Your task to perform on an android device: Open privacy settings Image 0: 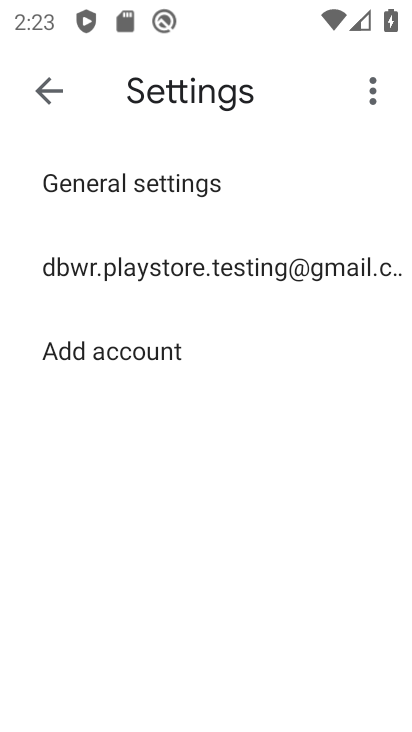
Step 0: press home button
Your task to perform on an android device: Open privacy settings Image 1: 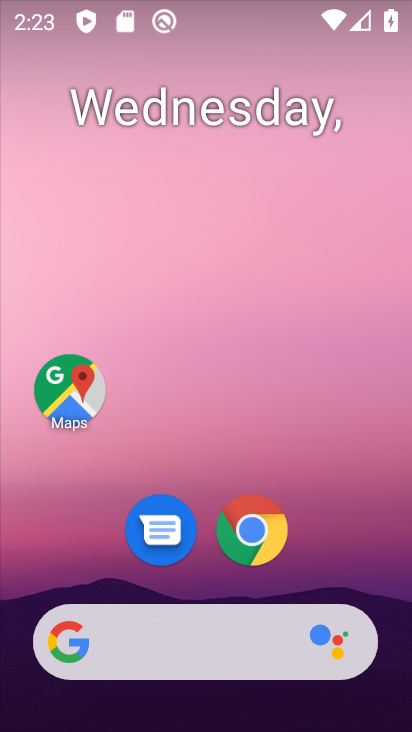
Step 1: drag from (251, 615) to (226, 14)
Your task to perform on an android device: Open privacy settings Image 2: 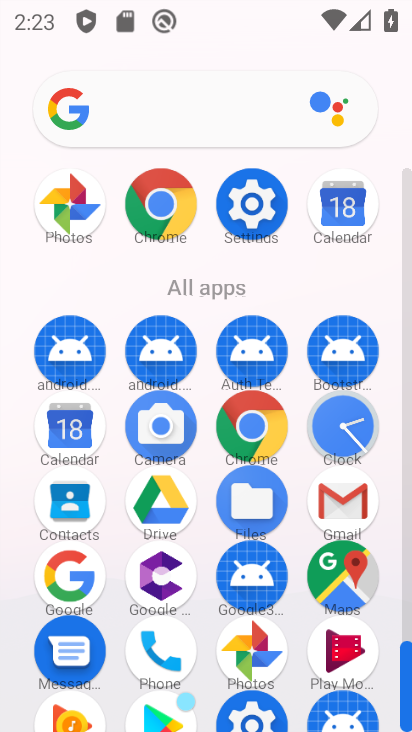
Step 2: click (247, 190)
Your task to perform on an android device: Open privacy settings Image 3: 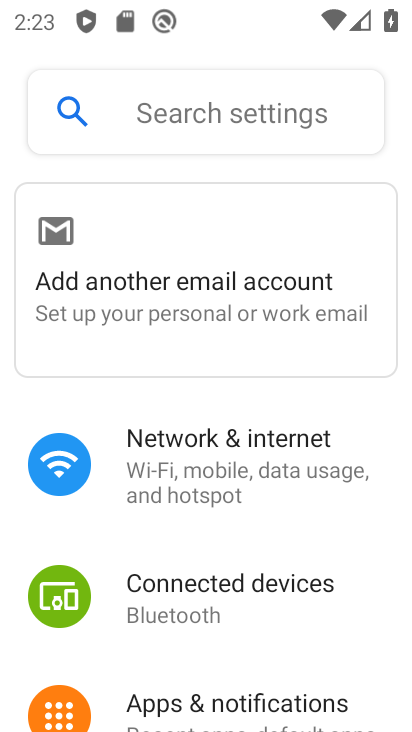
Step 3: drag from (294, 605) to (251, 10)
Your task to perform on an android device: Open privacy settings Image 4: 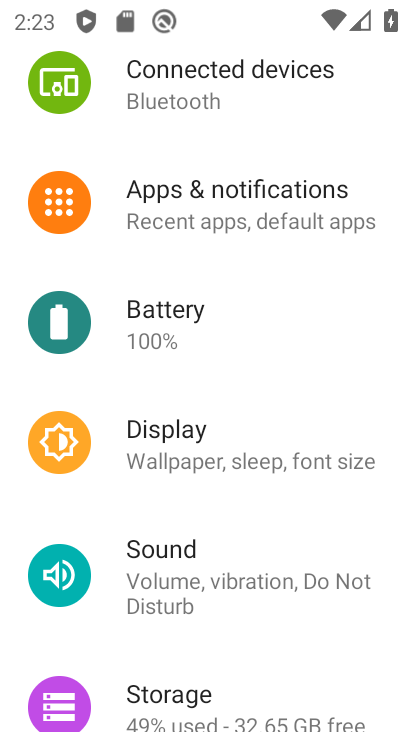
Step 4: drag from (201, 667) to (219, 176)
Your task to perform on an android device: Open privacy settings Image 5: 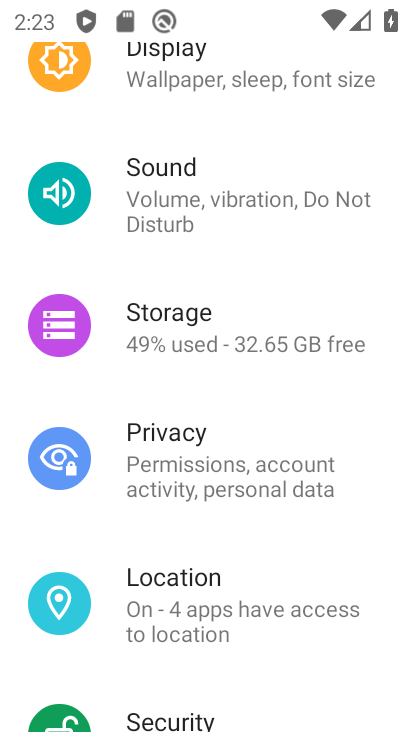
Step 5: click (180, 481)
Your task to perform on an android device: Open privacy settings Image 6: 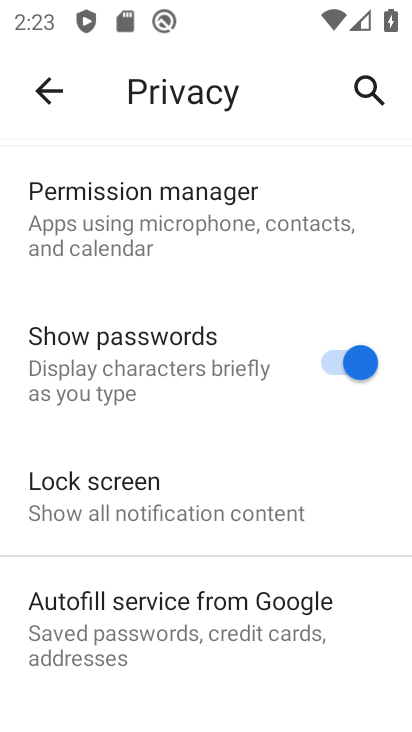
Step 6: task complete